Your task to perform on an android device: Open calendar and show me the fourth week of next month Image 0: 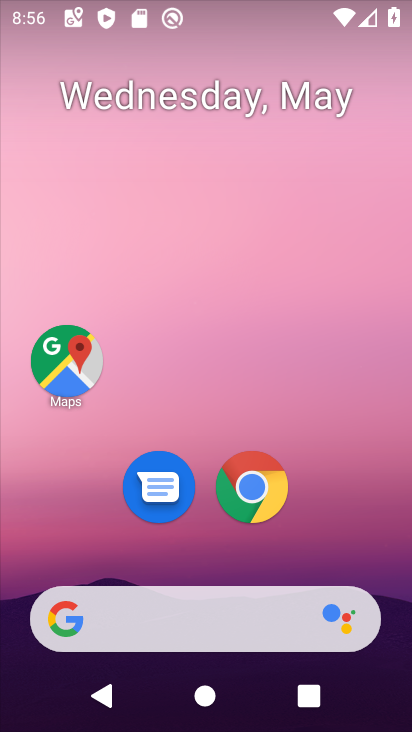
Step 0: drag from (347, 517) to (174, 38)
Your task to perform on an android device: Open calendar and show me the fourth week of next month Image 1: 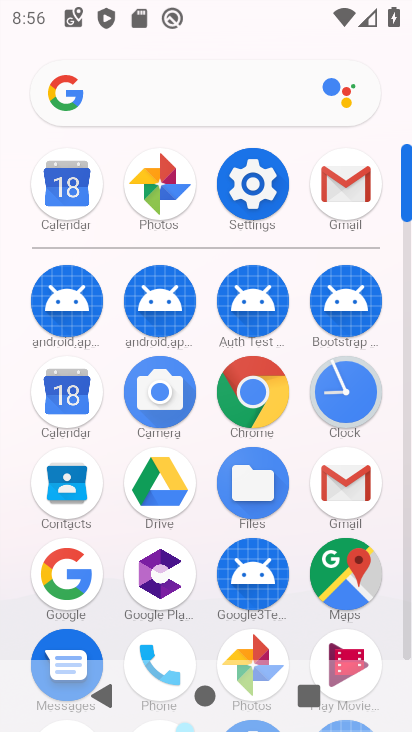
Step 1: click (55, 395)
Your task to perform on an android device: Open calendar and show me the fourth week of next month Image 2: 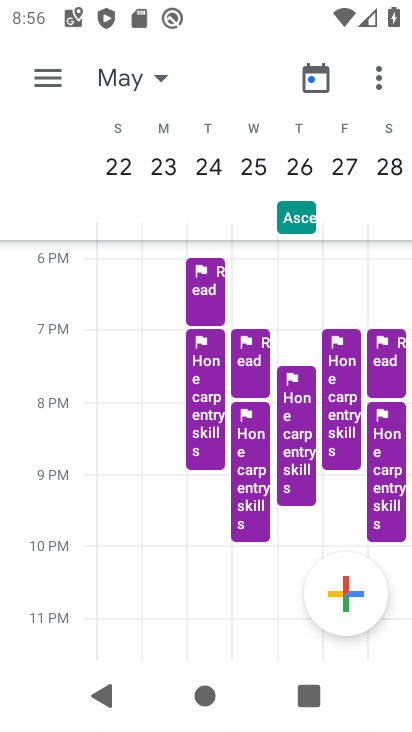
Step 2: click (160, 77)
Your task to perform on an android device: Open calendar and show me the fourth week of next month Image 3: 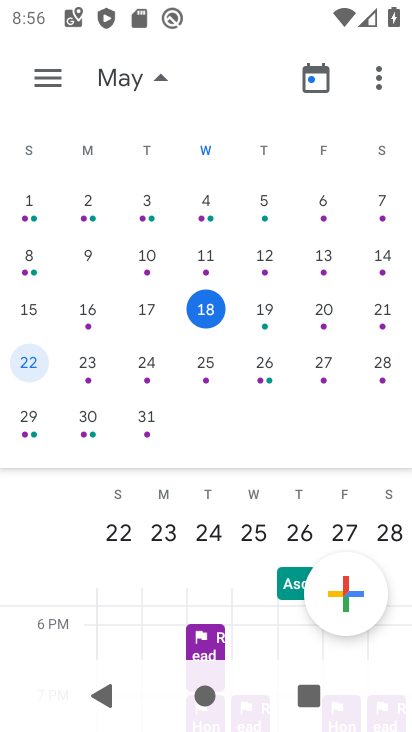
Step 3: drag from (376, 310) to (43, 294)
Your task to perform on an android device: Open calendar and show me the fourth week of next month Image 4: 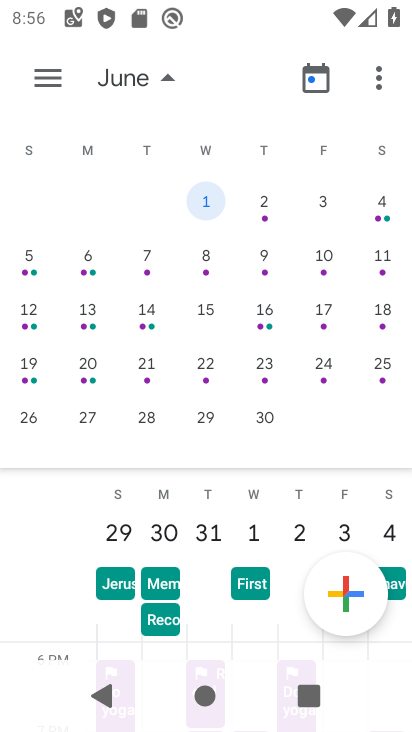
Step 4: click (206, 366)
Your task to perform on an android device: Open calendar and show me the fourth week of next month Image 5: 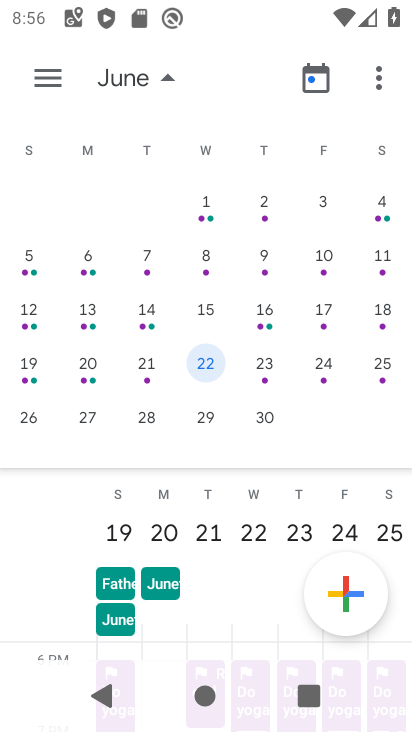
Step 5: task complete